Your task to perform on an android device: Open notification settings Image 0: 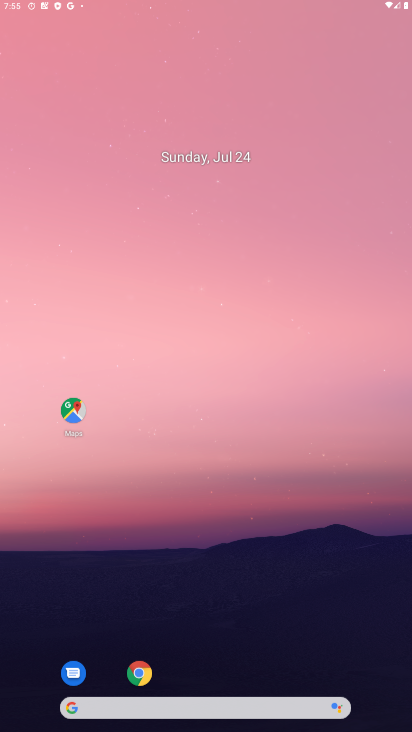
Step 0: press home button
Your task to perform on an android device: Open notification settings Image 1: 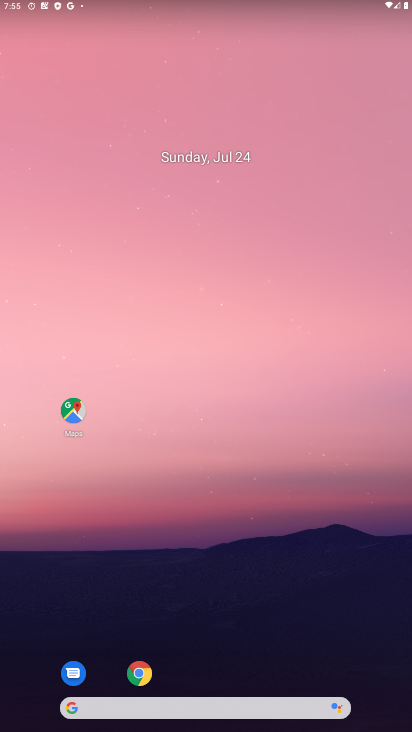
Step 1: drag from (11, 686) to (281, 25)
Your task to perform on an android device: Open notification settings Image 2: 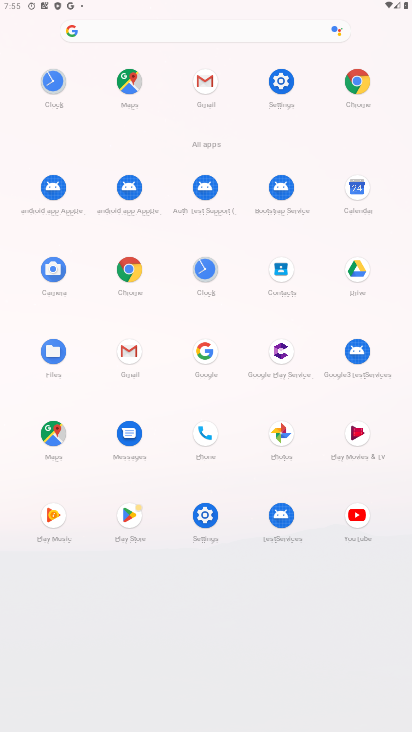
Step 2: click (193, 516)
Your task to perform on an android device: Open notification settings Image 3: 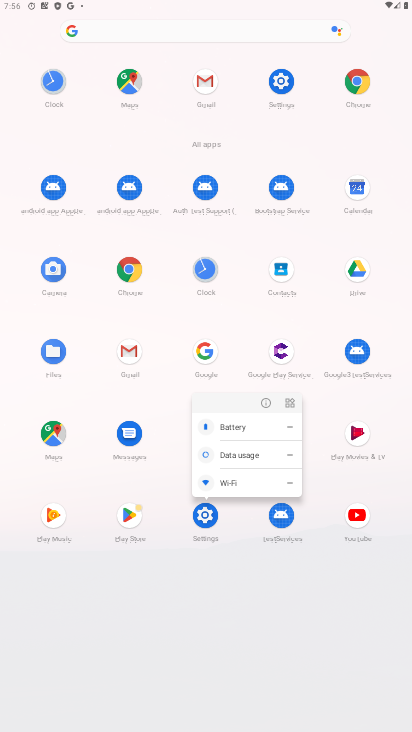
Step 3: click (194, 517)
Your task to perform on an android device: Open notification settings Image 4: 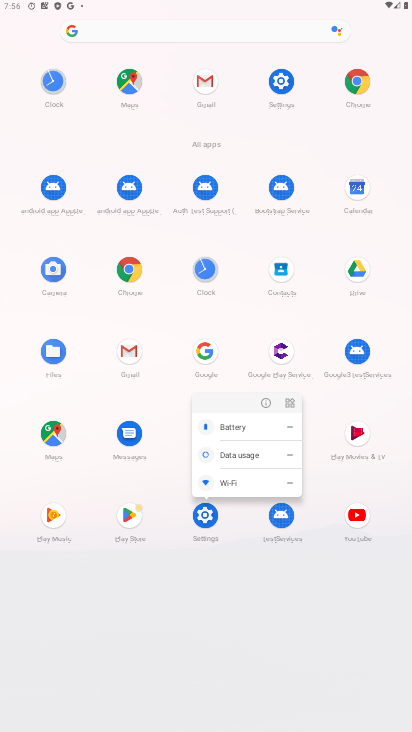
Step 4: click (197, 519)
Your task to perform on an android device: Open notification settings Image 5: 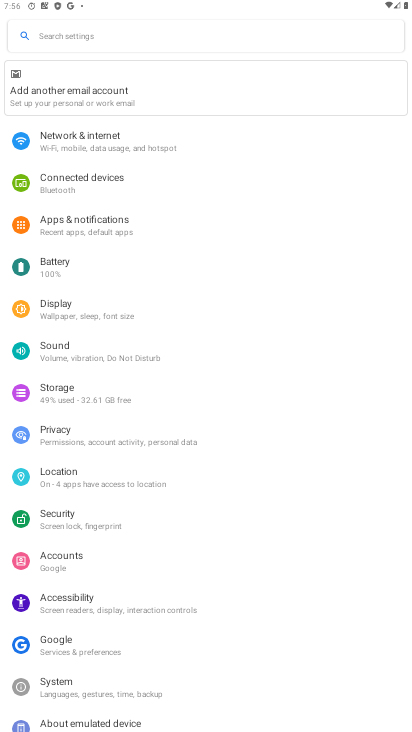
Step 5: click (96, 231)
Your task to perform on an android device: Open notification settings Image 6: 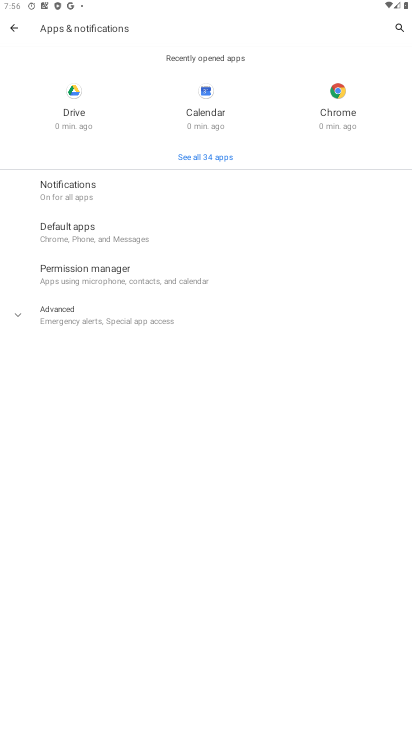
Step 6: task complete